Your task to perform on an android device: open a bookmark in the chrome app Image 0: 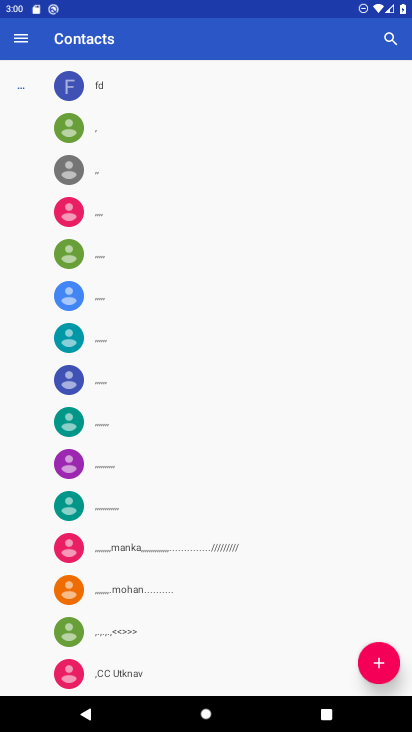
Step 0: press home button
Your task to perform on an android device: open a bookmark in the chrome app Image 1: 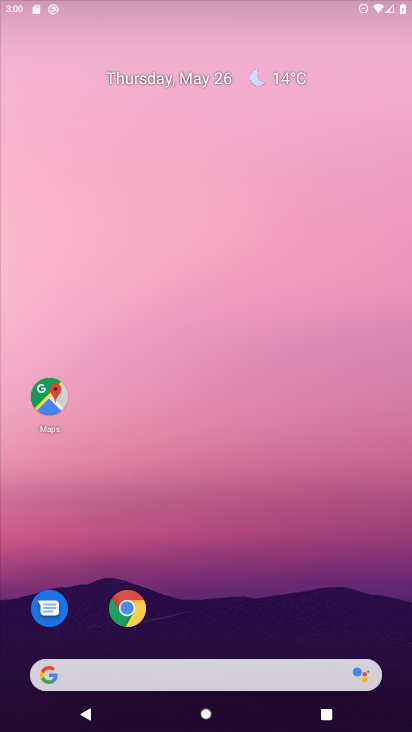
Step 1: drag from (380, 577) to (353, 33)
Your task to perform on an android device: open a bookmark in the chrome app Image 2: 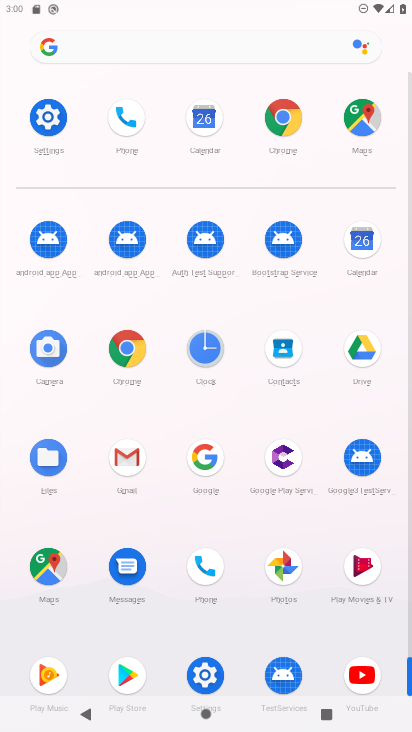
Step 2: click (281, 128)
Your task to perform on an android device: open a bookmark in the chrome app Image 3: 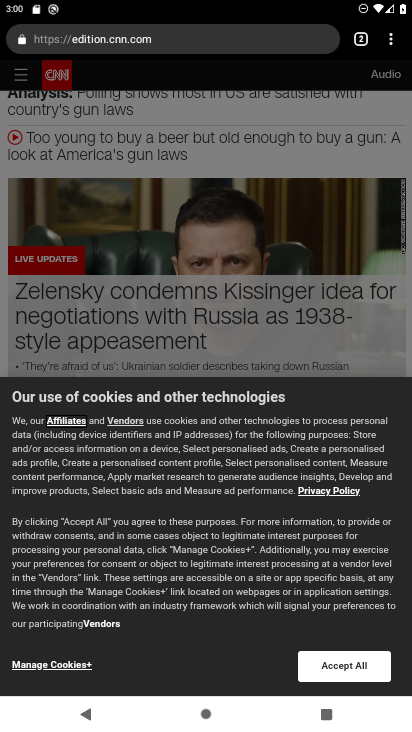
Step 3: task complete